Your task to perform on an android device: Open display settings Image 0: 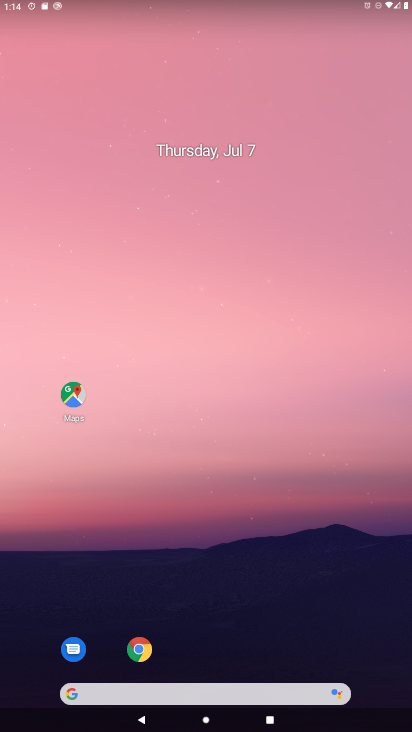
Step 0: drag from (220, 662) to (167, 196)
Your task to perform on an android device: Open display settings Image 1: 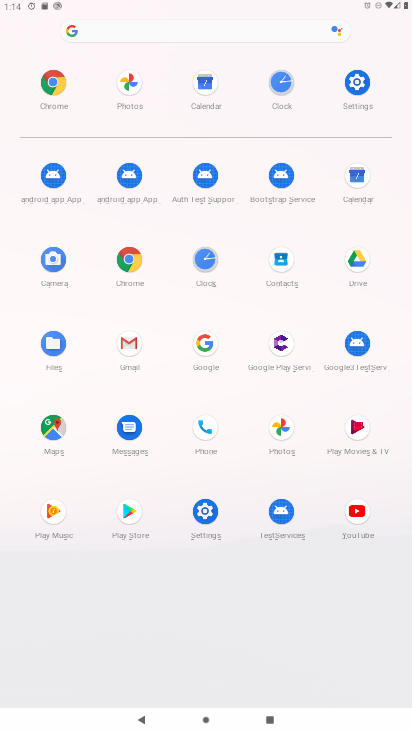
Step 1: click (357, 93)
Your task to perform on an android device: Open display settings Image 2: 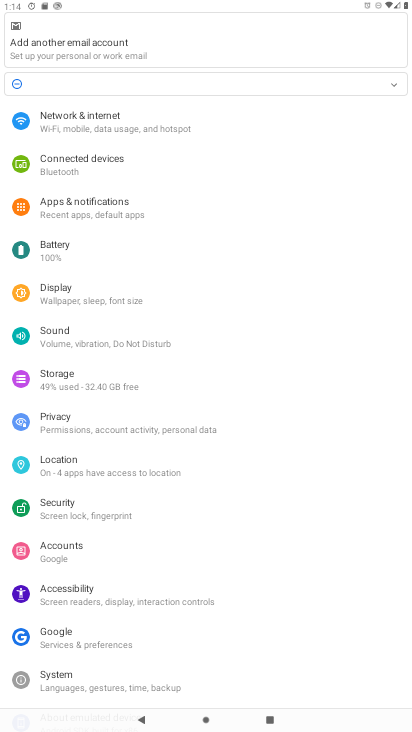
Step 2: click (67, 305)
Your task to perform on an android device: Open display settings Image 3: 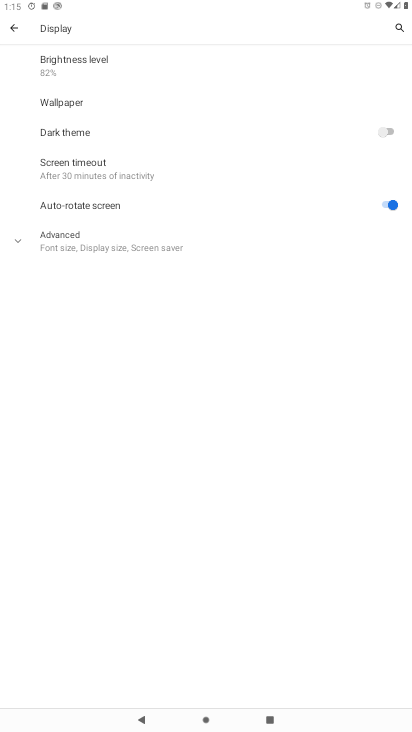
Step 3: task complete